Your task to perform on an android device: all mails in gmail Image 0: 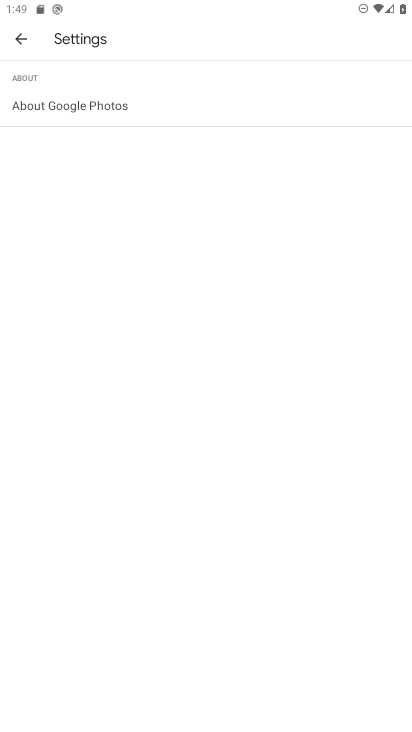
Step 0: press home button
Your task to perform on an android device: all mails in gmail Image 1: 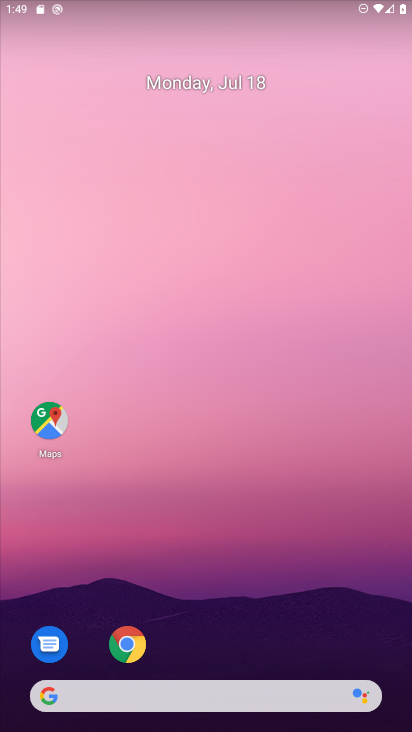
Step 1: drag from (278, 572) to (251, 1)
Your task to perform on an android device: all mails in gmail Image 2: 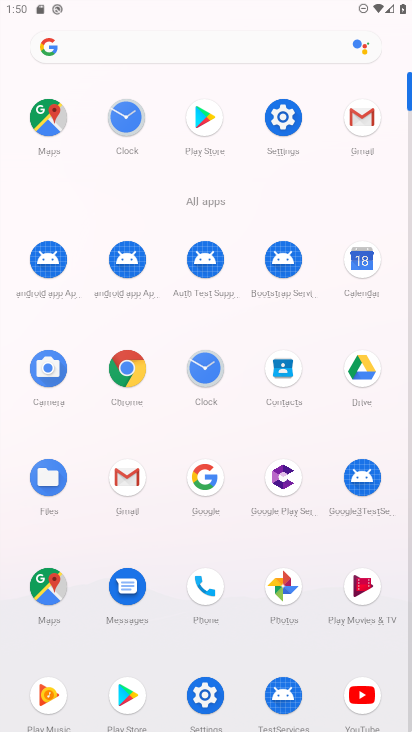
Step 2: click (127, 486)
Your task to perform on an android device: all mails in gmail Image 3: 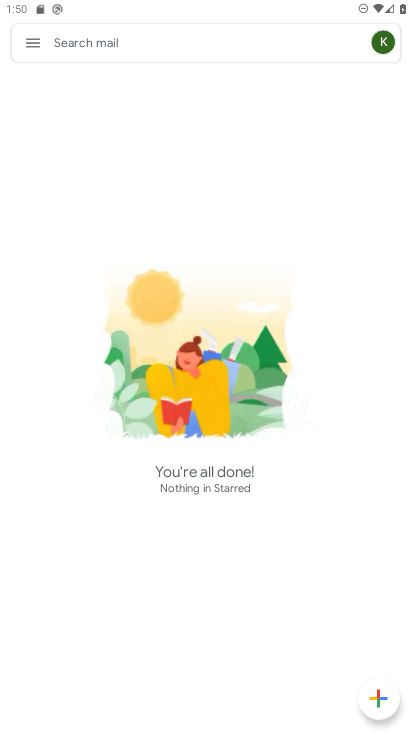
Step 3: click (39, 51)
Your task to perform on an android device: all mails in gmail Image 4: 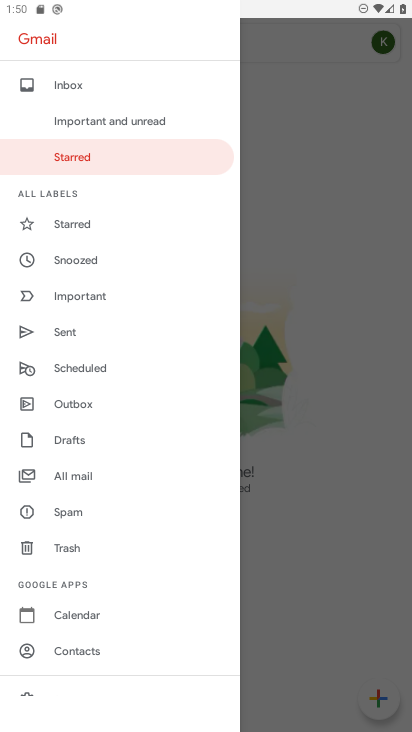
Step 4: click (89, 476)
Your task to perform on an android device: all mails in gmail Image 5: 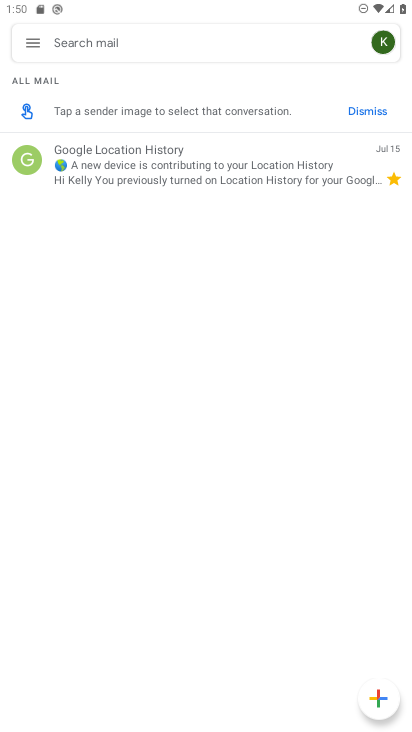
Step 5: task complete